Your task to perform on an android device: uninstall "Adobe Acrobat Reader: Edit PDF" Image 0: 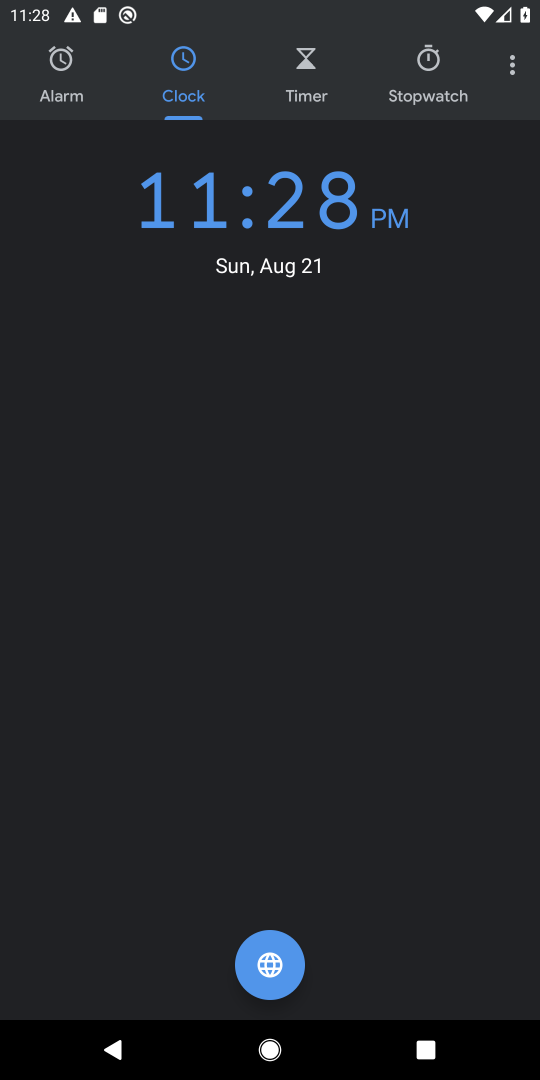
Step 0: press home button
Your task to perform on an android device: uninstall "Adobe Acrobat Reader: Edit PDF" Image 1: 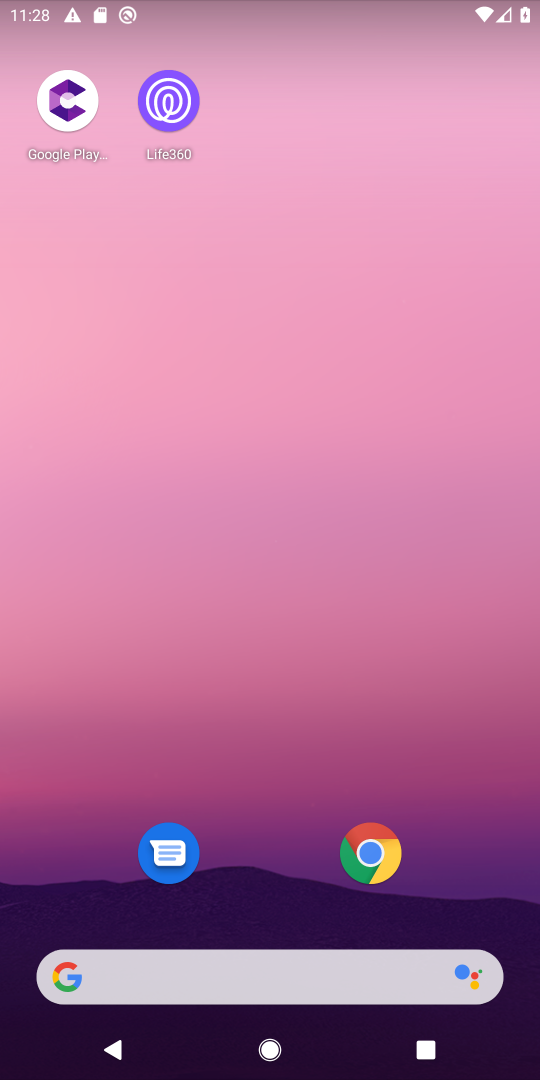
Step 1: drag from (273, 933) to (272, 204)
Your task to perform on an android device: uninstall "Adobe Acrobat Reader: Edit PDF" Image 2: 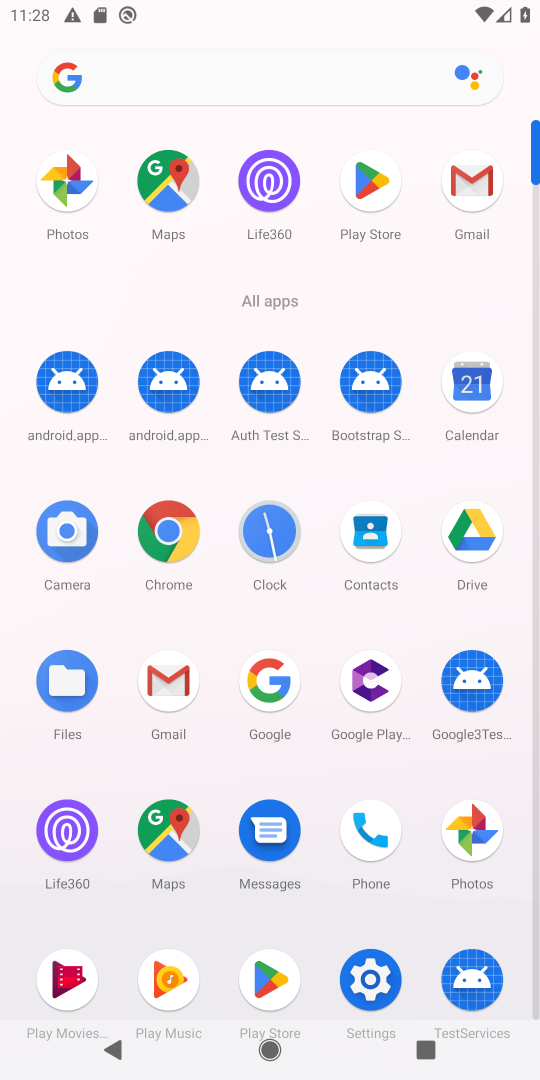
Step 2: click (373, 180)
Your task to perform on an android device: uninstall "Adobe Acrobat Reader: Edit PDF" Image 3: 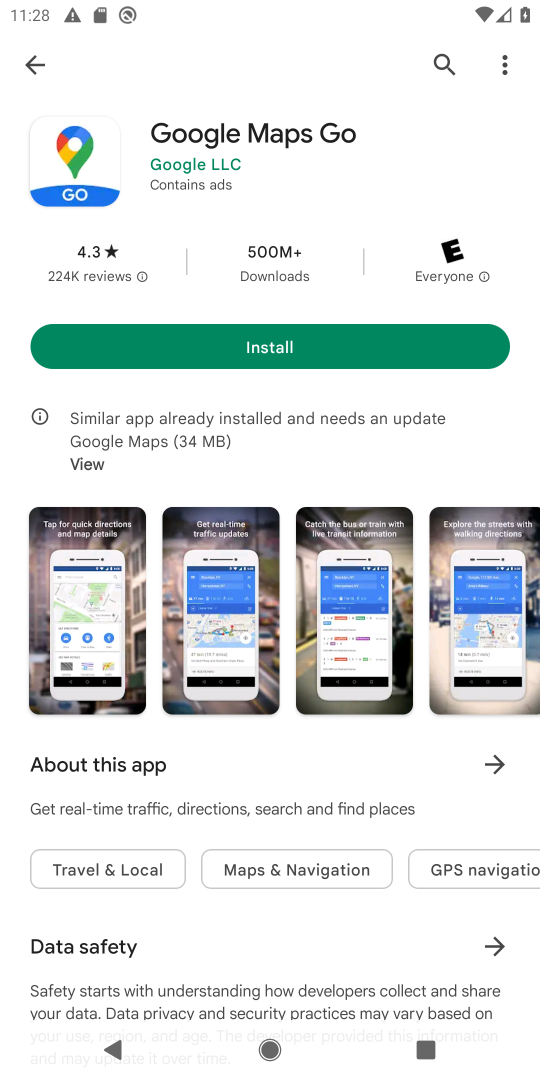
Step 3: click (44, 59)
Your task to perform on an android device: uninstall "Adobe Acrobat Reader: Edit PDF" Image 4: 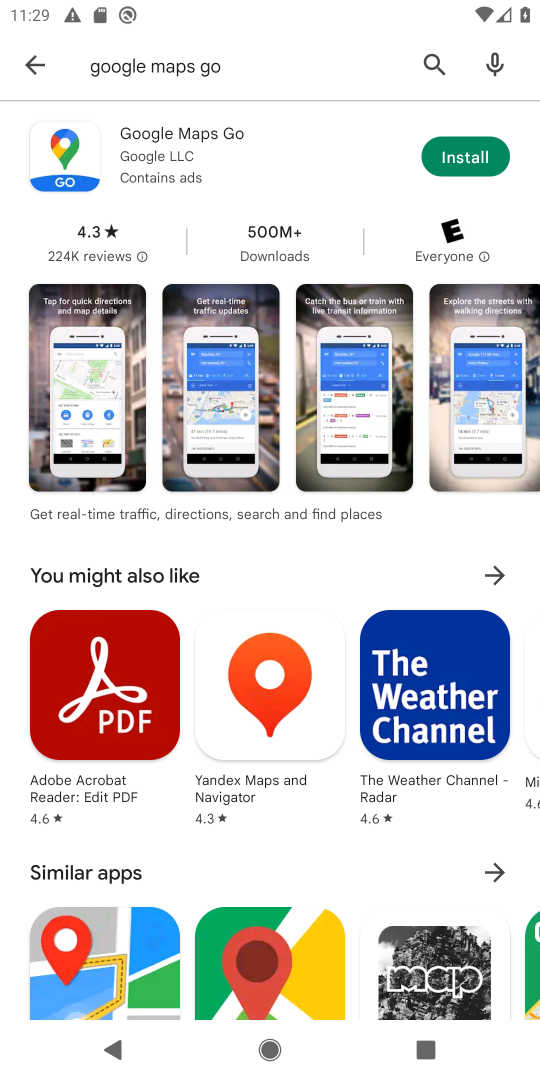
Step 4: click (431, 58)
Your task to perform on an android device: uninstall "Adobe Acrobat Reader: Edit PDF" Image 5: 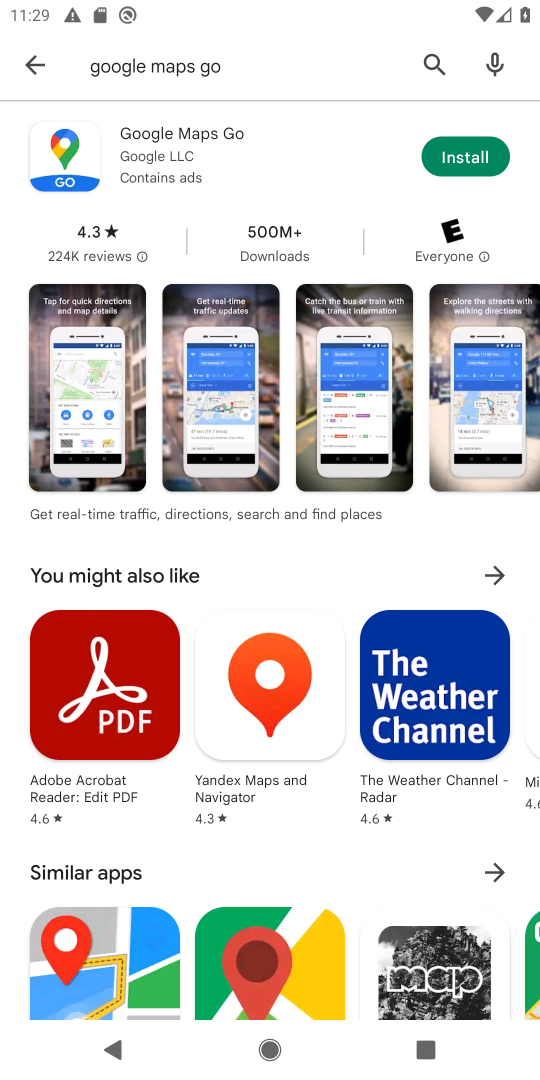
Step 5: click (431, 58)
Your task to perform on an android device: uninstall "Adobe Acrobat Reader: Edit PDF" Image 6: 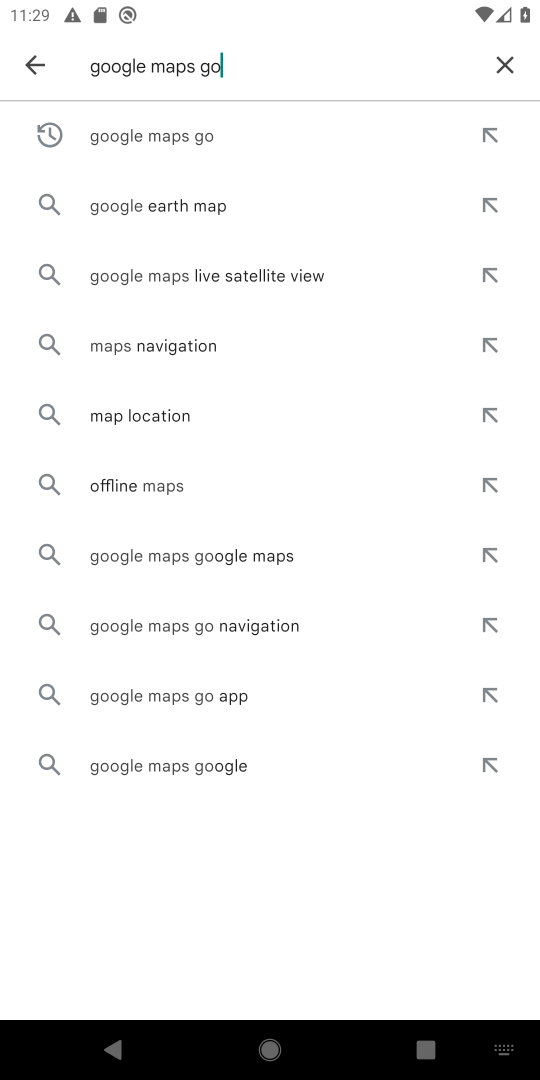
Step 6: click (431, 58)
Your task to perform on an android device: uninstall "Adobe Acrobat Reader: Edit PDF" Image 7: 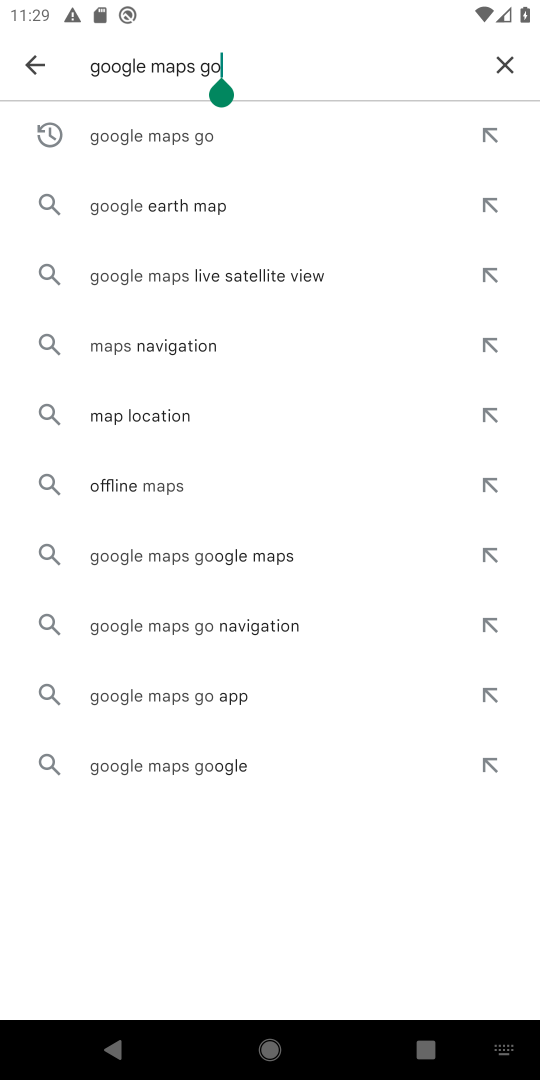
Step 7: click (519, 66)
Your task to perform on an android device: uninstall "Adobe Acrobat Reader: Edit PDF" Image 8: 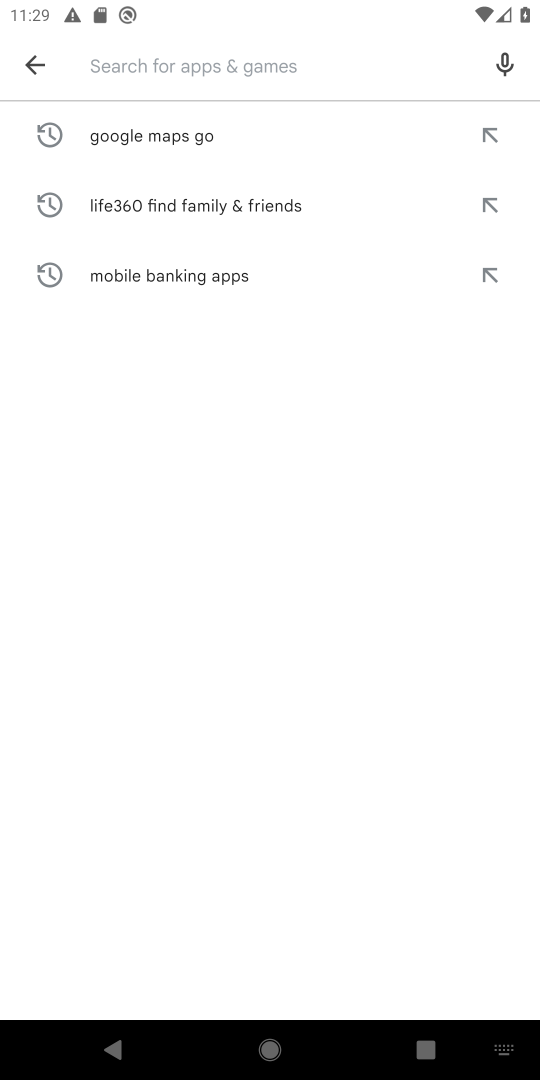
Step 8: click (222, 44)
Your task to perform on an android device: uninstall "Adobe Acrobat Reader: Edit PDF" Image 9: 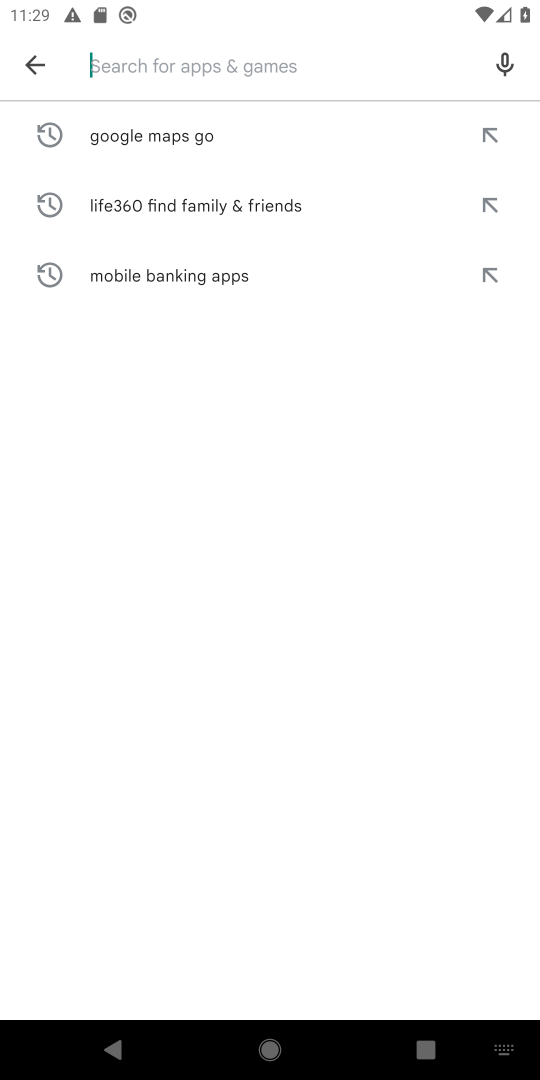
Step 9: type "Adobe Acrobat Reader: Edit PDF "
Your task to perform on an android device: uninstall "Adobe Acrobat Reader: Edit PDF" Image 10: 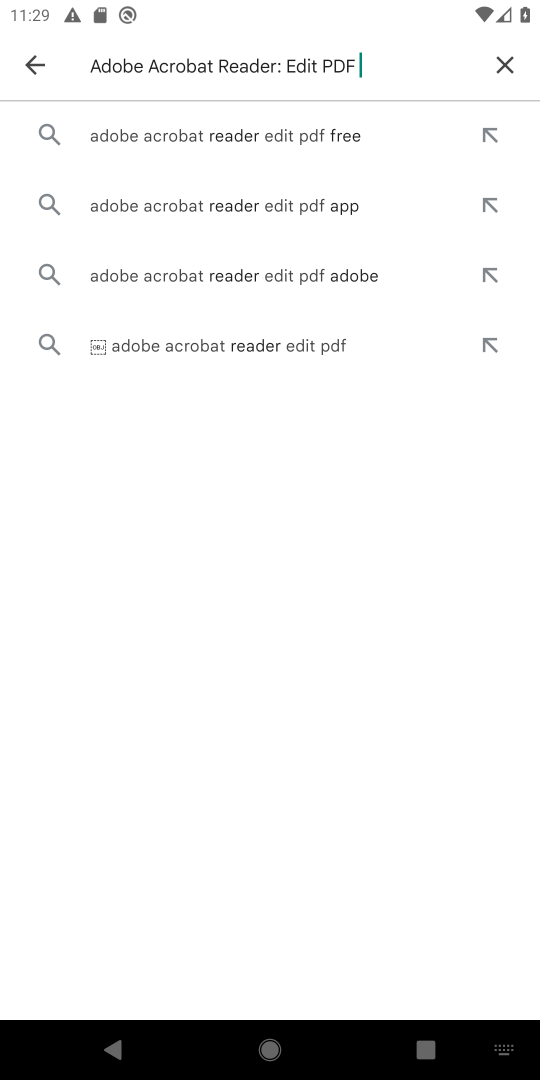
Step 10: click (195, 143)
Your task to perform on an android device: uninstall "Adobe Acrobat Reader: Edit PDF" Image 11: 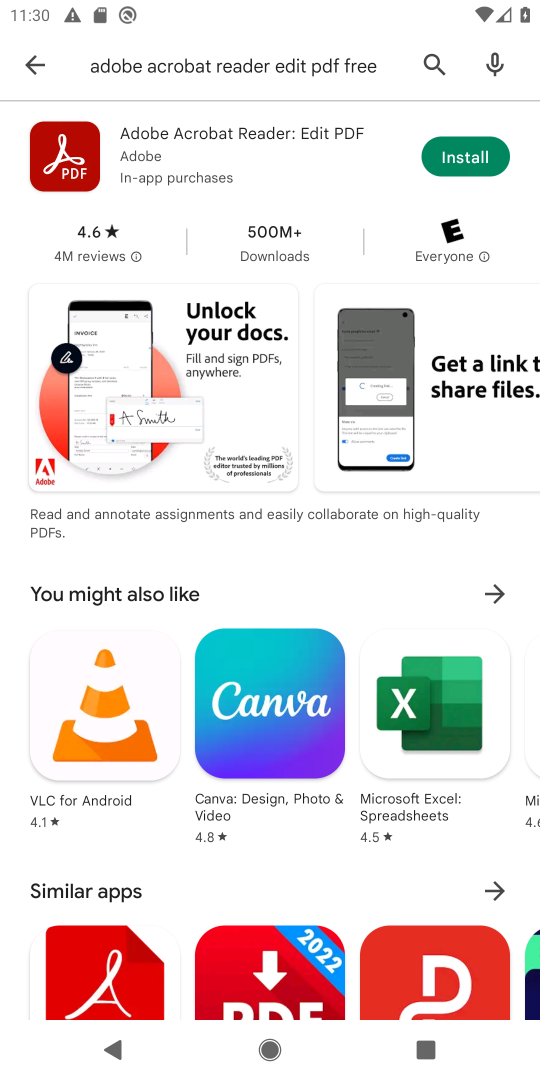
Step 11: task complete